Your task to perform on an android device: toggle notifications settings in the gmail app Image 0: 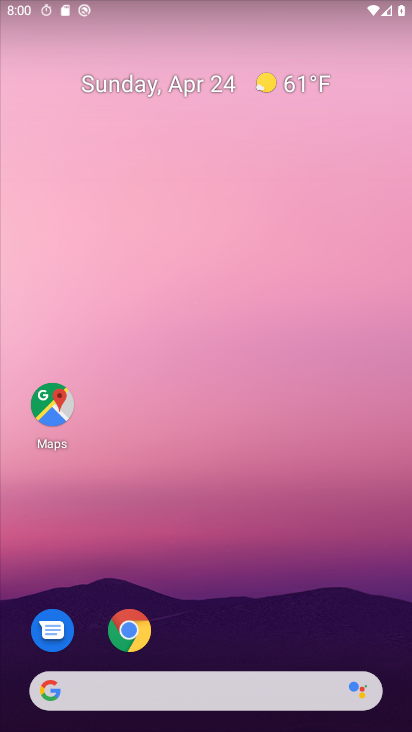
Step 0: drag from (358, 616) to (363, 61)
Your task to perform on an android device: toggle notifications settings in the gmail app Image 1: 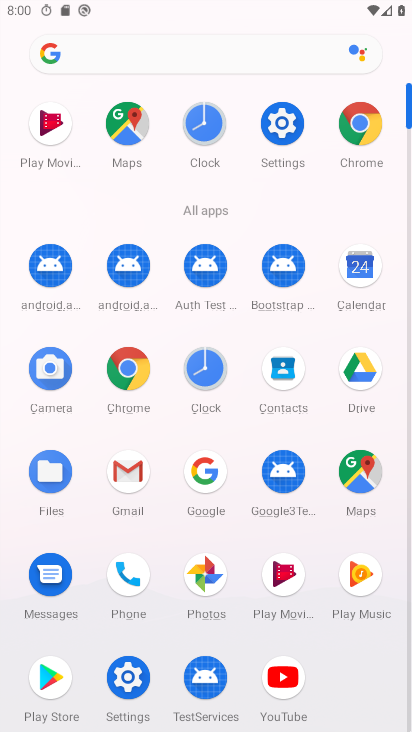
Step 1: click (132, 470)
Your task to perform on an android device: toggle notifications settings in the gmail app Image 2: 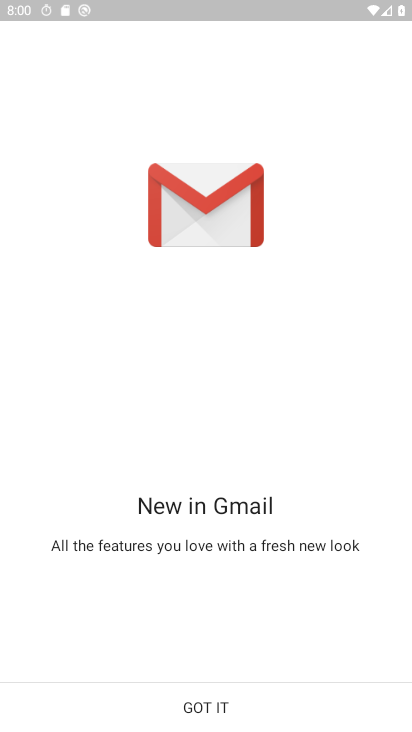
Step 2: click (206, 704)
Your task to perform on an android device: toggle notifications settings in the gmail app Image 3: 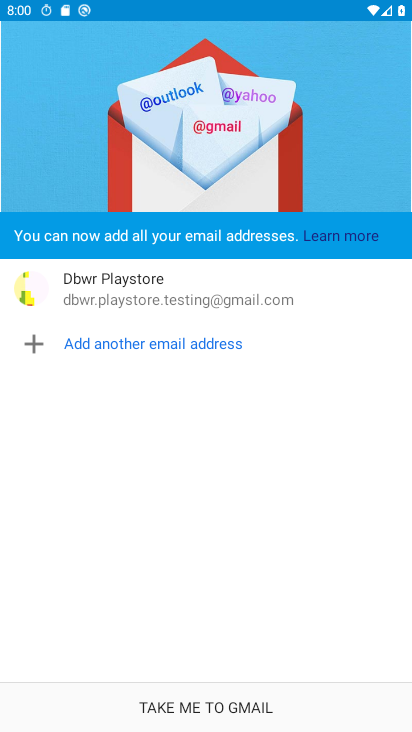
Step 3: click (280, 714)
Your task to perform on an android device: toggle notifications settings in the gmail app Image 4: 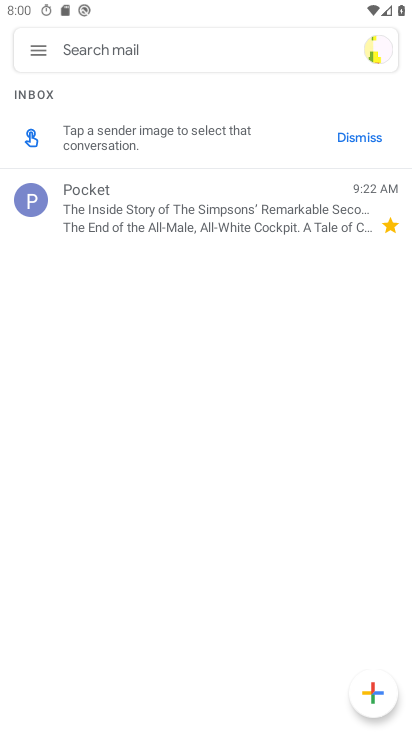
Step 4: click (35, 46)
Your task to perform on an android device: toggle notifications settings in the gmail app Image 5: 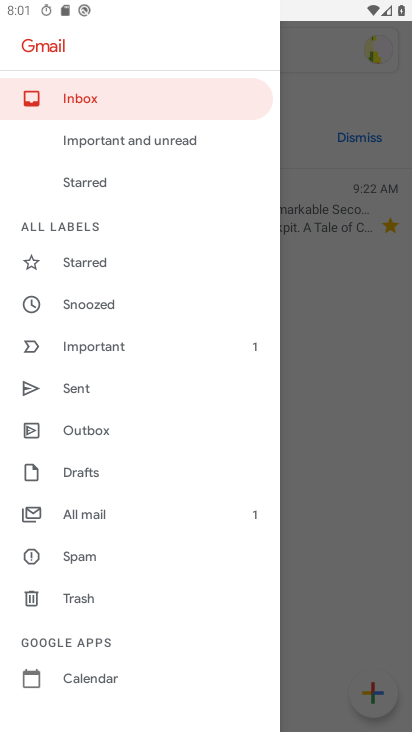
Step 5: drag from (220, 535) to (218, 386)
Your task to perform on an android device: toggle notifications settings in the gmail app Image 6: 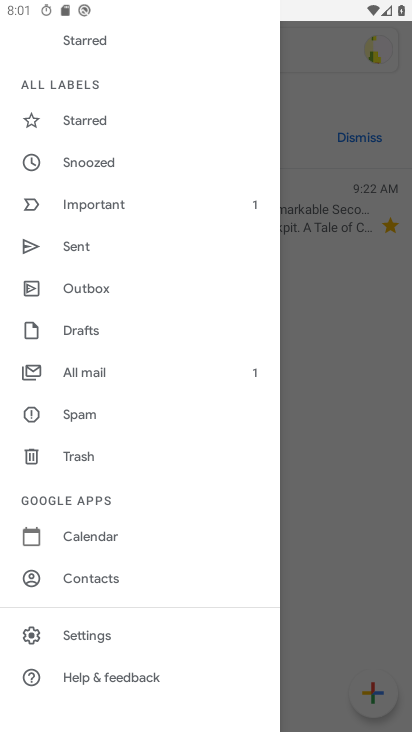
Step 6: drag from (194, 627) to (198, 281)
Your task to perform on an android device: toggle notifications settings in the gmail app Image 7: 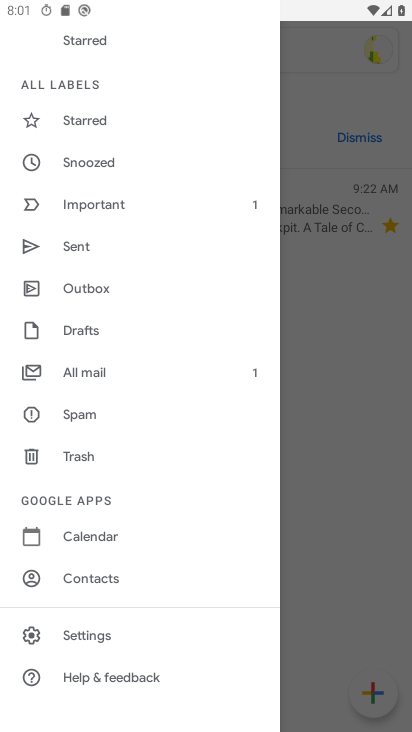
Step 7: click (94, 638)
Your task to perform on an android device: toggle notifications settings in the gmail app Image 8: 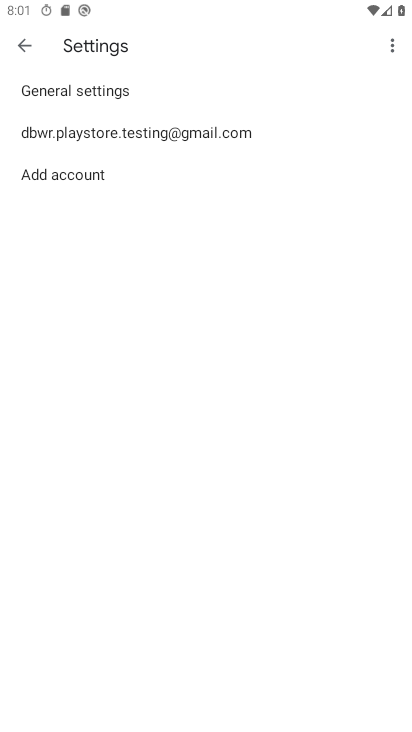
Step 8: click (227, 134)
Your task to perform on an android device: toggle notifications settings in the gmail app Image 9: 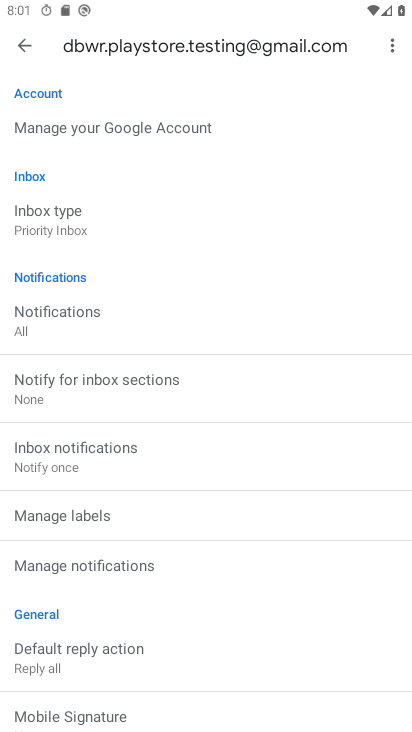
Step 9: click (113, 307)
Your task to perform on an android device: toggle notifications settings in the gmail app Image 10: 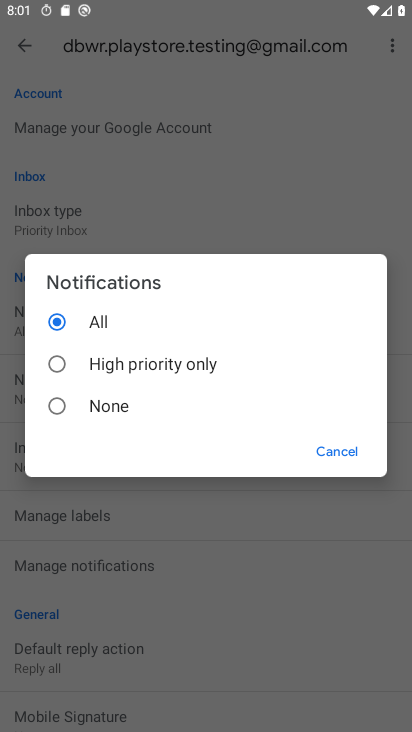
Step 10: click (190, 379)
Your task to perform on an android device: toggle notifications settings in the gmail app Image 11: 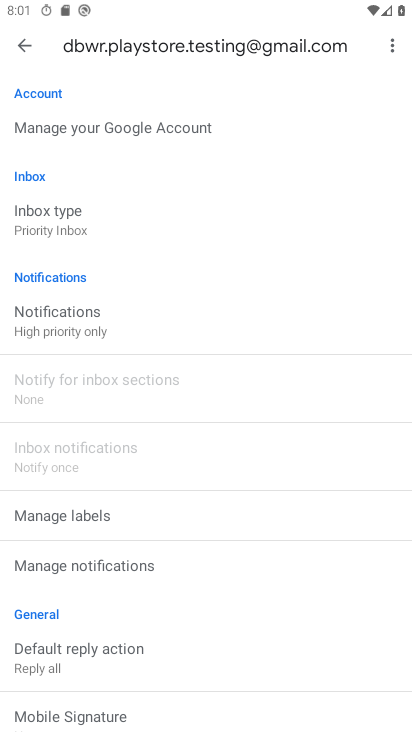
Step 11: task complete